Your task to perform on an android device: Open my contact list Image 0: 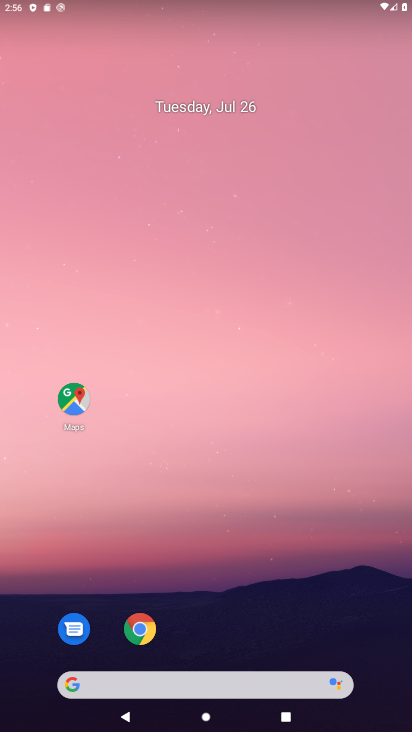
Step 0: drag from (235, 727) to (235, 162)
Your task to perform on an android device: Open my contact list Image 1: 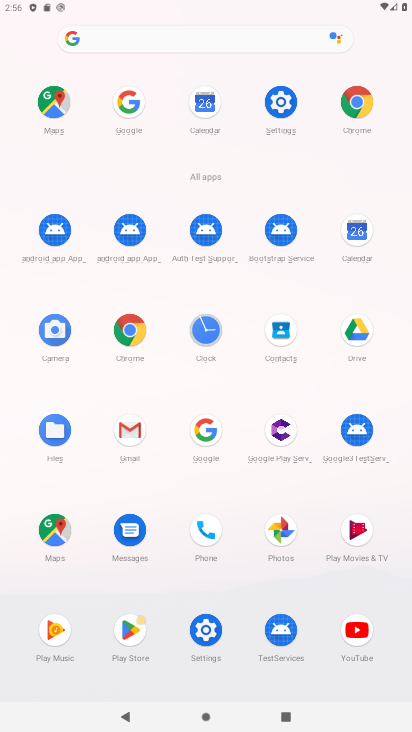
Step 1: click (274, 329)
Your task to perform on an android device: Open my contact list Image 2: 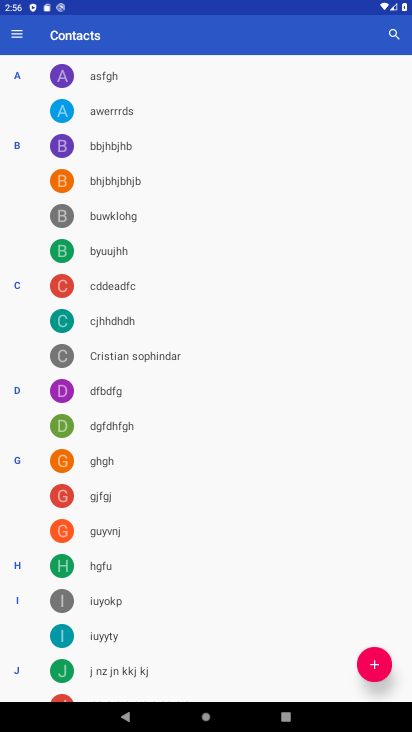
Step 2: task complete